Your task to perform on an android device: Open calendar and show me the fourth week of next month Image 0: 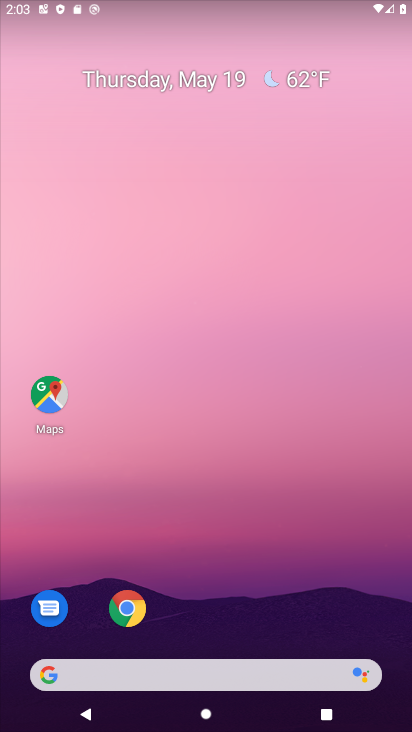
Step 0: drag from (297, 596) to (252, 148)
Your task to perform on an android device: Open calendar and show me the fourth week of next month Image 1: 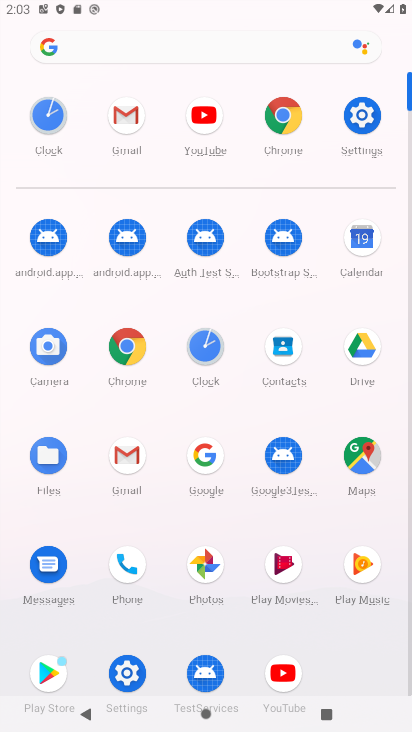
Step 1: click (341, 252)
Your task to perform on an android device: Open calendar and show me the fourth week of next month Image 2: 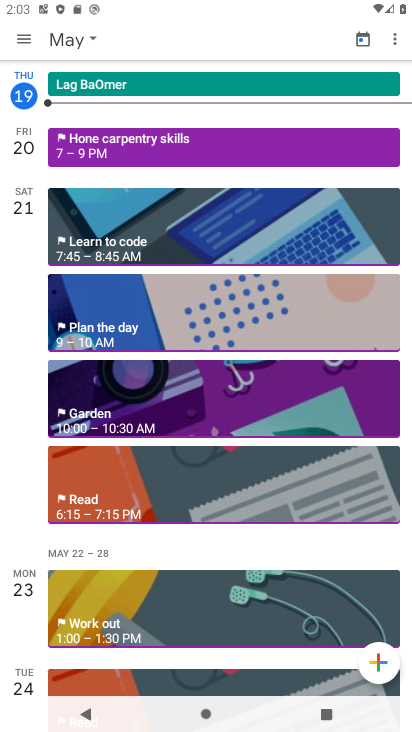
Step 2: task complete